Your task to perform on an android device: turn on notifications settings in the gmail app Image 0: 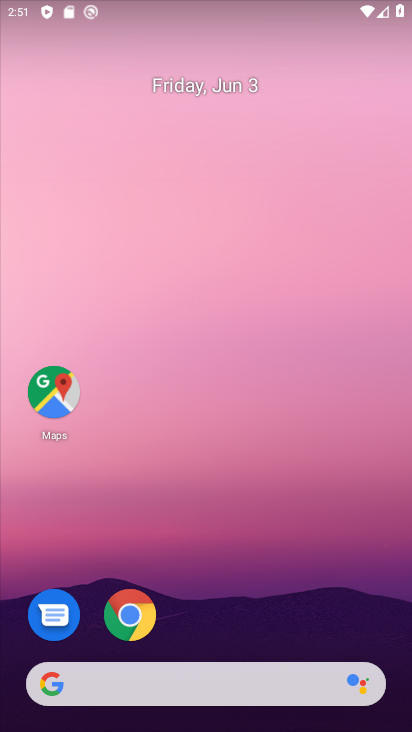
Step 0: drag from (201, 619) to (232, 269)
Your task to perform on an android device: turn on notifications settings in the gmail app Image 1: 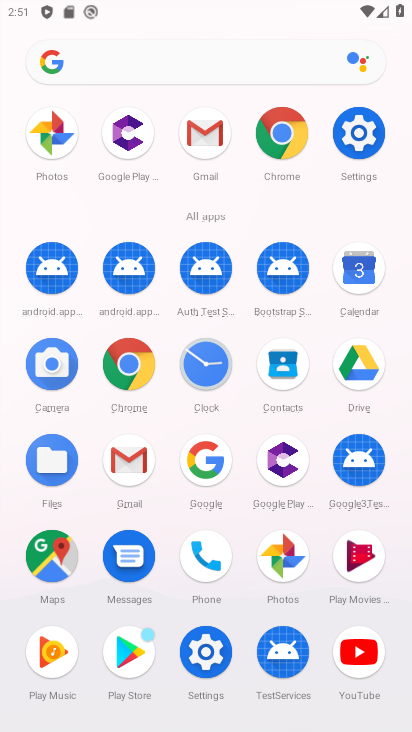
Step 1: click (127, 467)
Your task to perform on an android device: turn on notifications settings in the gmail app Image 2: 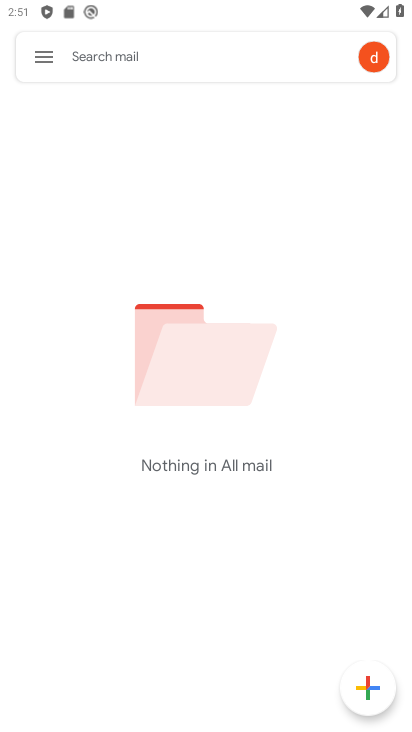
Step 2: click (42, 63)
Your task to perform on an android device: turn on notifications settings in the gmail app Image 3: 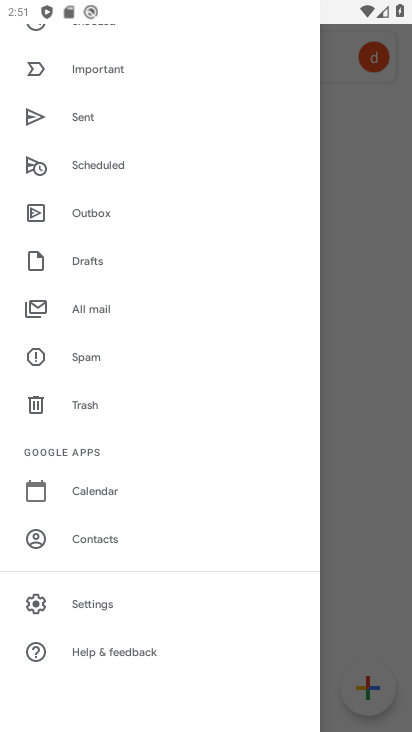
Step 3: click (91, 606)
Your task to perform on an android device: turn on notifications settings in the gmail app Image 4: 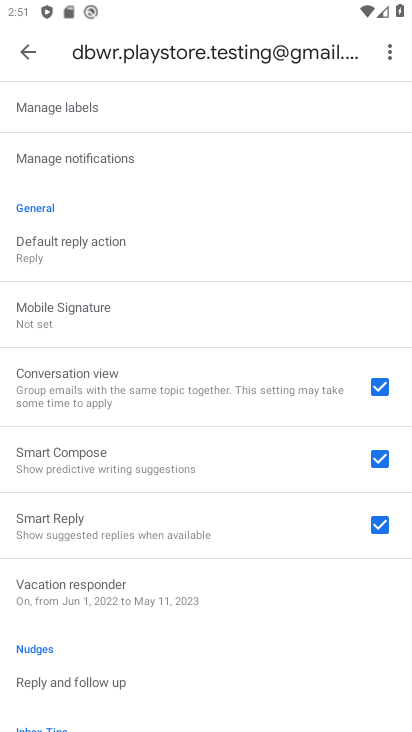
Step 4: click (123, 157)
Your task to perform on an android device: turn on notifications settings in the gmail app Image 5: 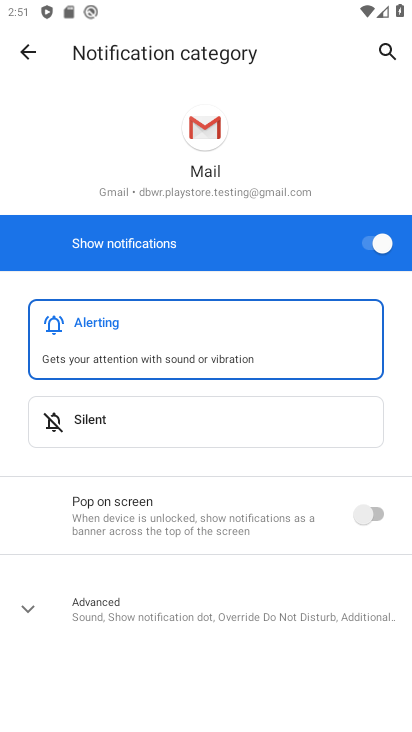
Step 5: task complete